Your task to perform on an android device: turn pop-ups off in chrome Image 0: 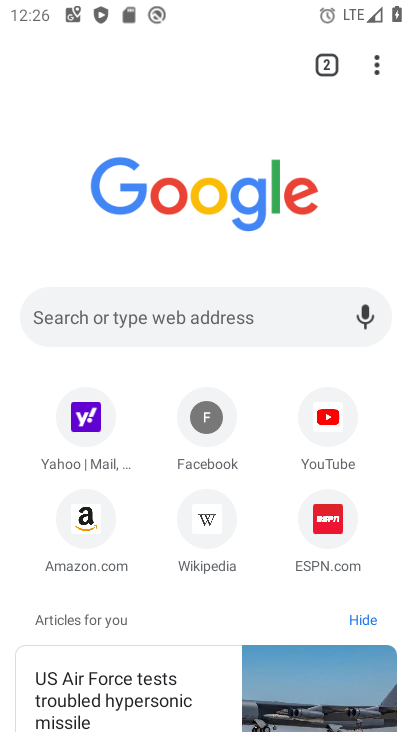
Step 0: press home button
Your task to perform on an android device: turn pop-ups off in chrome Image 1: 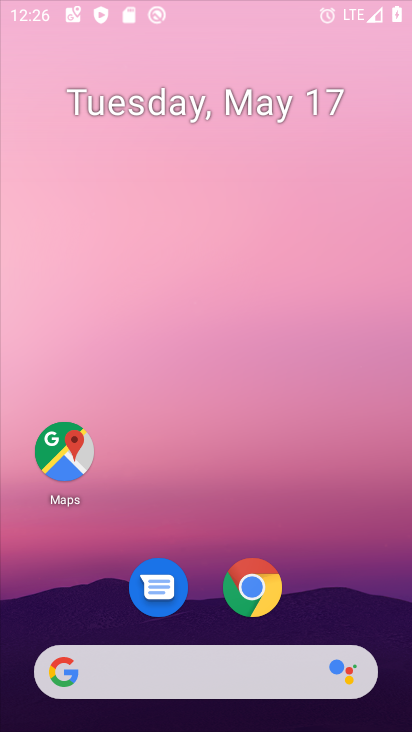
Step 1: drag from (391, 635) to (279, 71)
Your task to perform on an android device: turn pop-ups off in chrome Image 2: 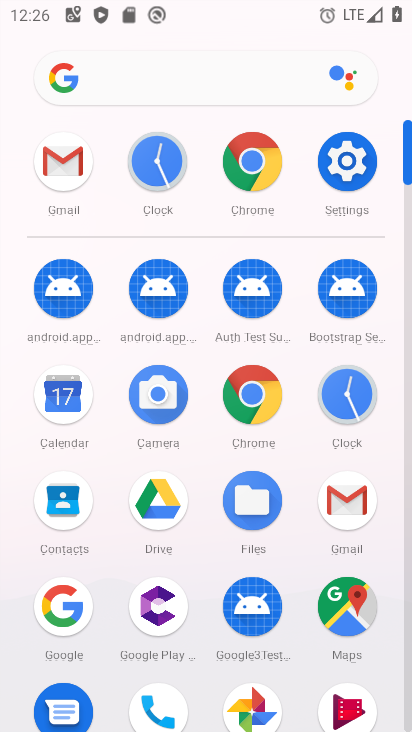
Step 2: click (232, 159)
Your task to perform on an android device: turn pop-ups off in chrome Image 3: 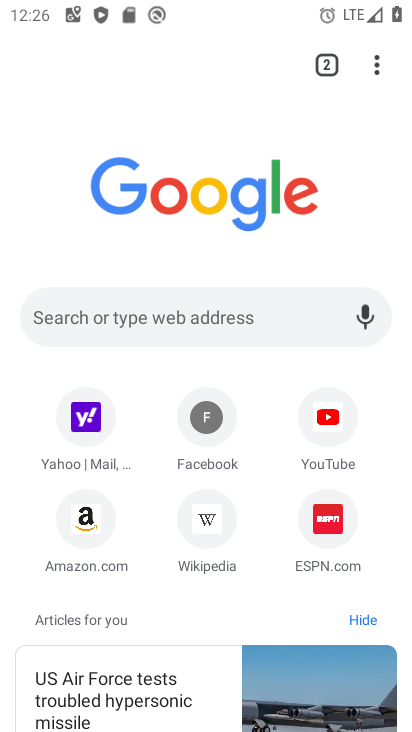
Step 3: click (376, 64)
Your task to perform on an android device: turn pop-ups off in chrome Image 4: 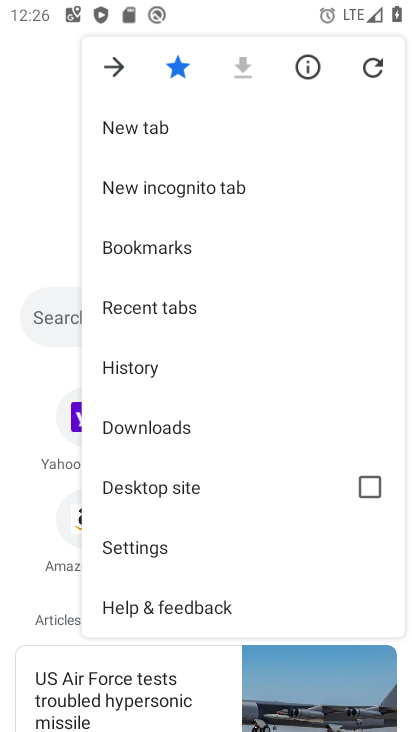
Step 4: click (169, 553)
Your task to perform on an android device: turn pop-ups off in chrome Image 5: 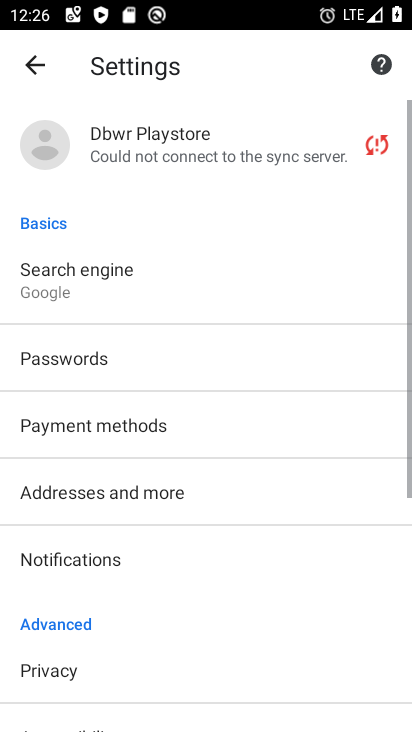
Step 5: drag from (137, 603) to (115, 216)
Your task to perform on an android device: turn pop-ups off in chrome Image 6: 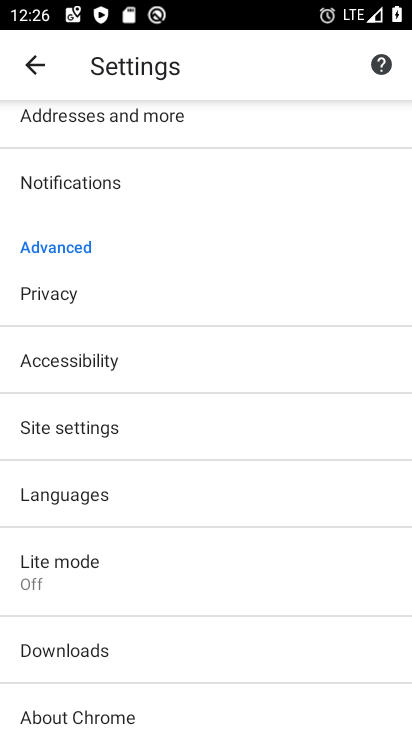
Step 6: click (144, 438)
Your task to perform on an android device: turn pop-ups off in chrome Image 7: 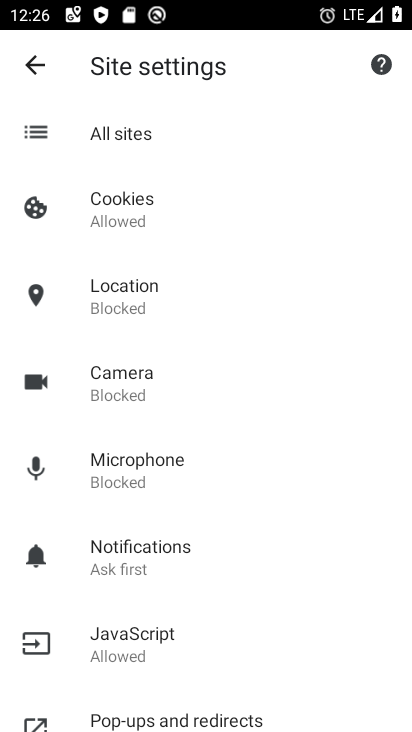
Step 7: click (172, 712)
Your task to perform on an android device: turn pop-ups off in chrome Image 8: 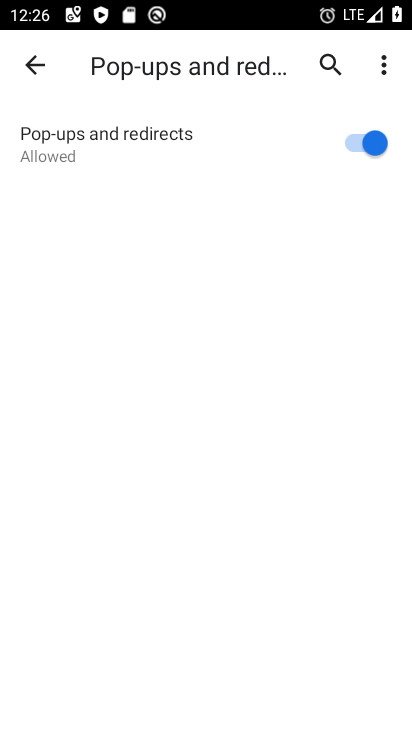
Step 8: click (338, 157)
Your task to perform on an android device: turn pop-ups off in chrome Image 9: 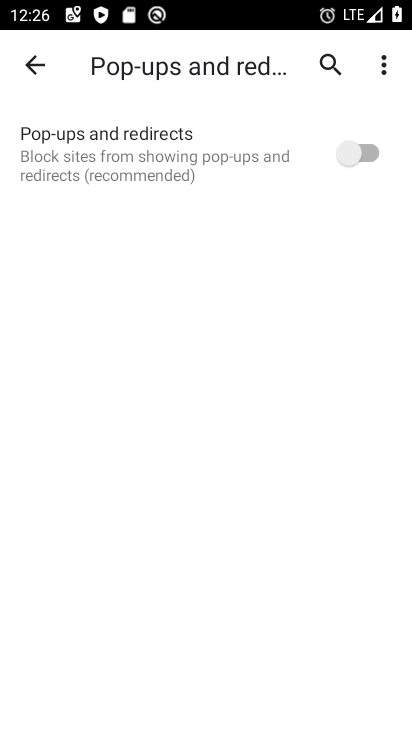
Step 9: task complete